Your task to perform on an android device: Is it going to rain this weekend? Image 0: 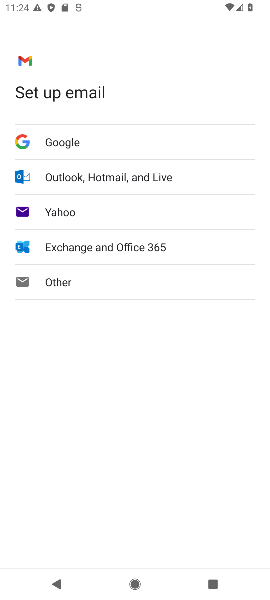
Step 0: press home button
Your task to perform on an android device: Is it going to rain this weekend? Image 1: 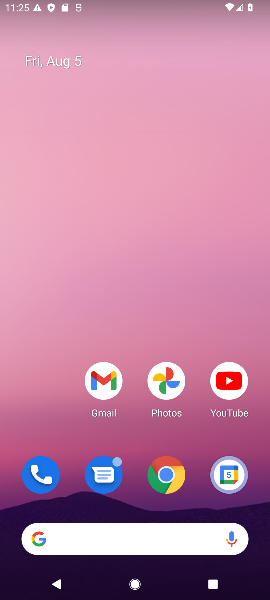
Step 1: click (227, 484)
Your task to perform on an android device: Is it going to rain this weekend? Image 2: 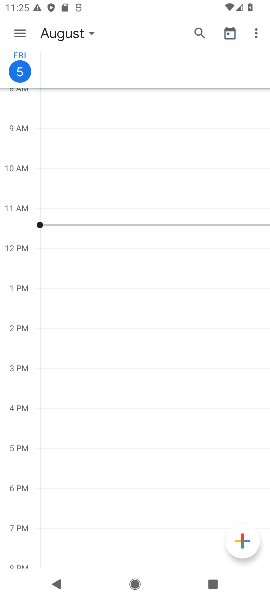
Step 2: press home button
Your task to perform on an android device: Is it going to rain this weekend? Image 3: 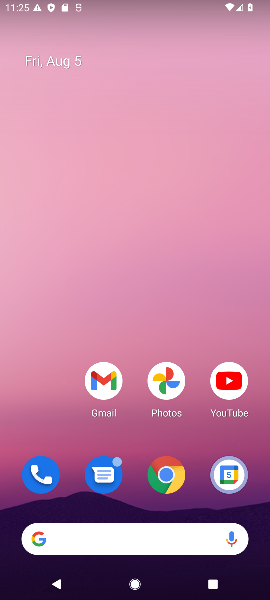
Step 3: click (115, 540)
Your task to perform on an android device: Is it going to rain this weekend? Image 4: 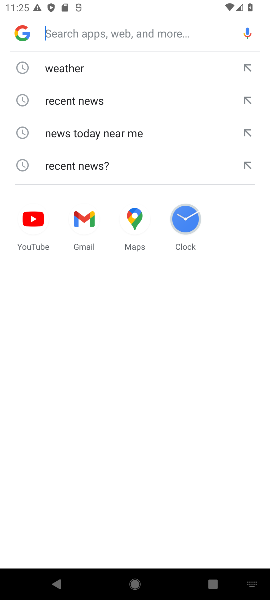
Step 4: click (66, 73)
Your task to perform on an android device: Is it going to rain this weekend? Image 5: 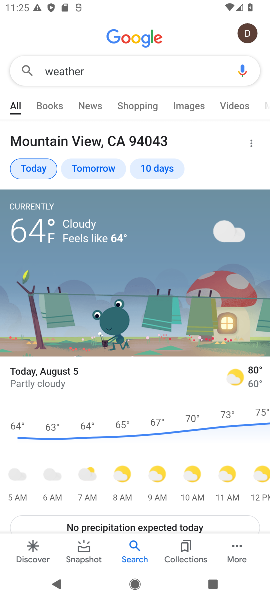
Step 5: click (167, 169)
Your task to perform on an android device: Is it going to rain this weekend? Image 6: 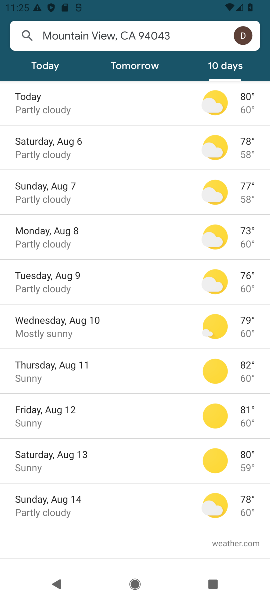
Step 6: task complete